Your task to perform on an android device: What is the capital of the United Kingdom? Image 0: 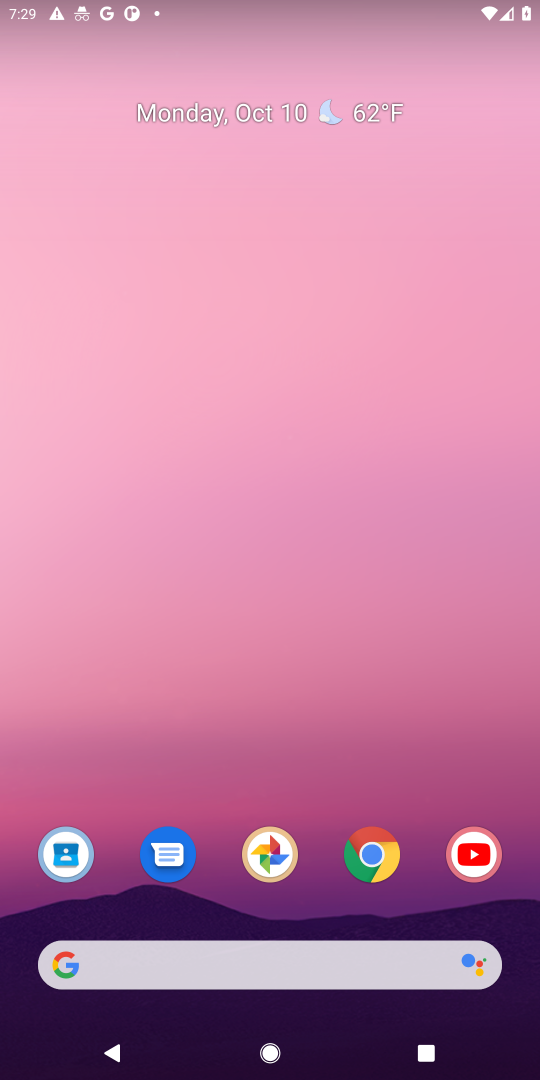
Step 0: click (372, 855)
Your task to perform on an android device: What is the capital of the United Kingdom? Image 1: 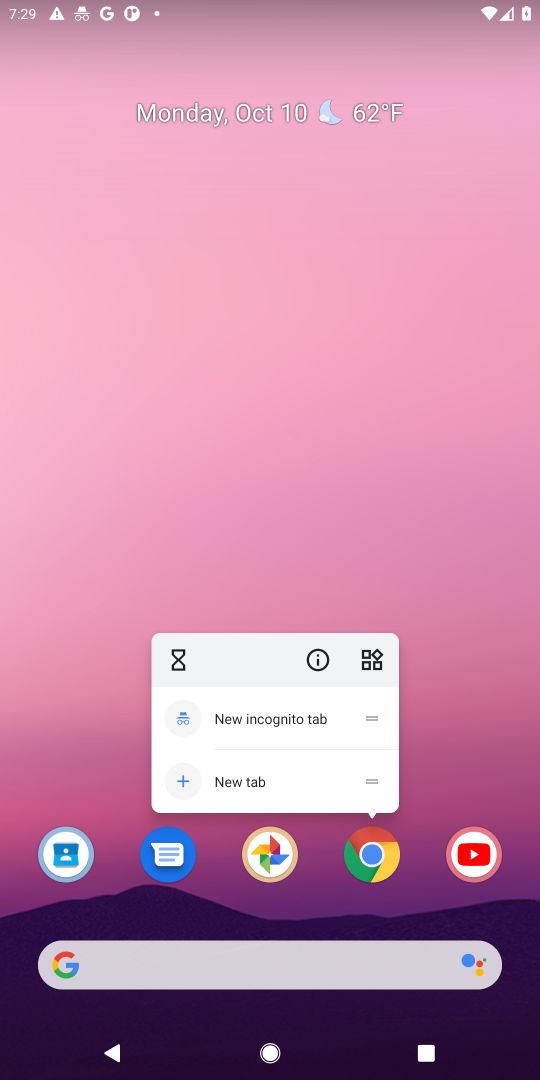
Step 1: click (372, 855)
Your task to perform on an android device: What is the capital of the United Kingdom? Image 2: 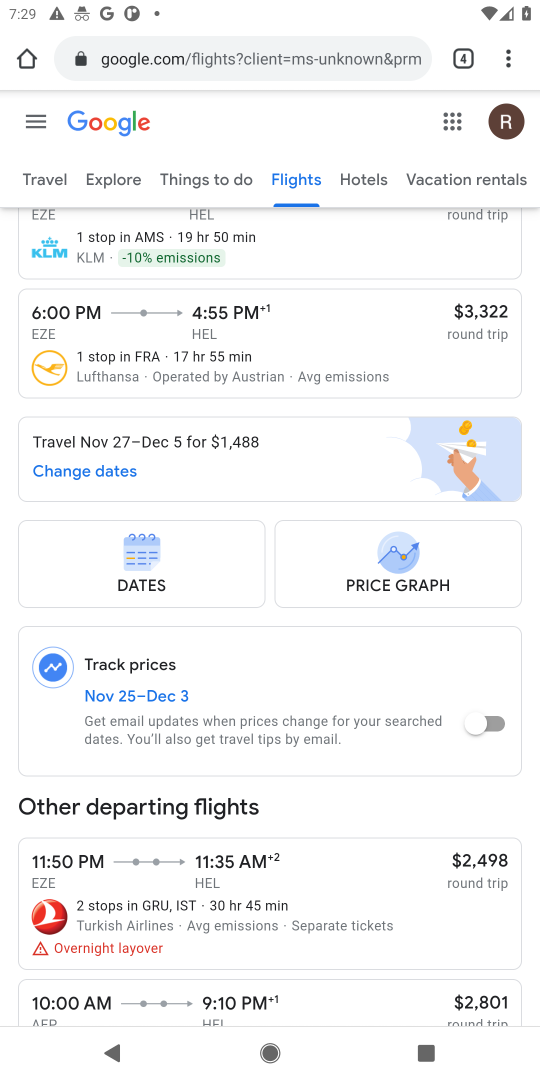
Step 2: drag from (301, 532) to (307, 803)
Your task to perform on an android device: What is the capital of the United Kingdom? Image 3: 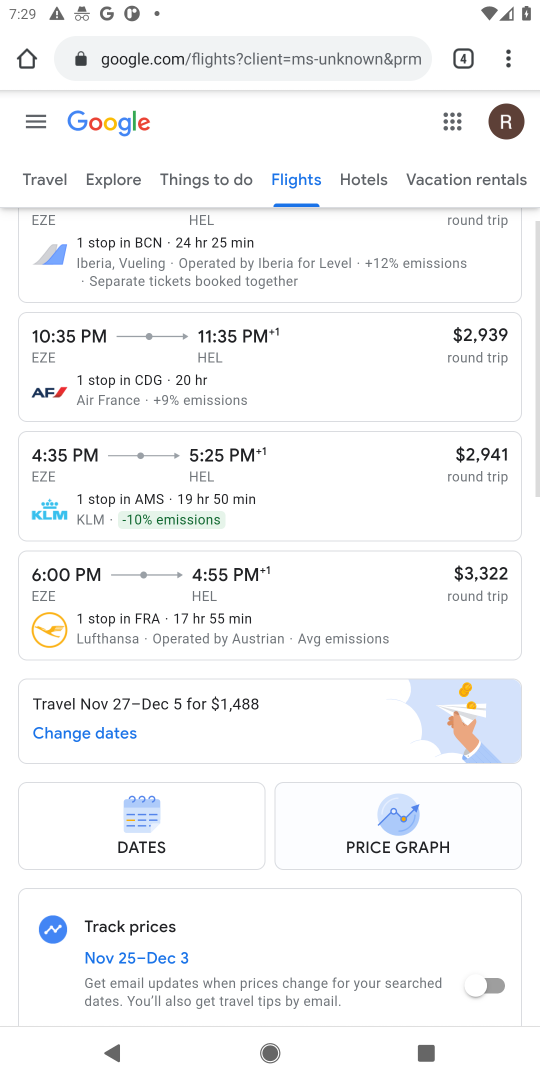
Step 3: click (342, 44)
Your task to perform on an android device: What is the capital of the United Kingdom? Image 4: 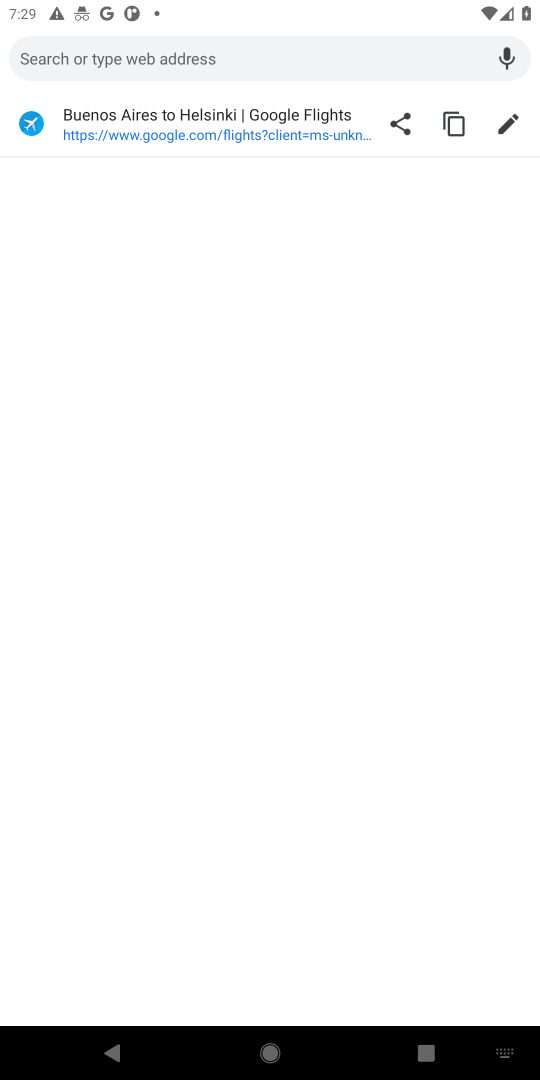
Step 4: click (364, 56)
Your task to perform on an android device: What is the capital of the United Kingdom? Image 5: 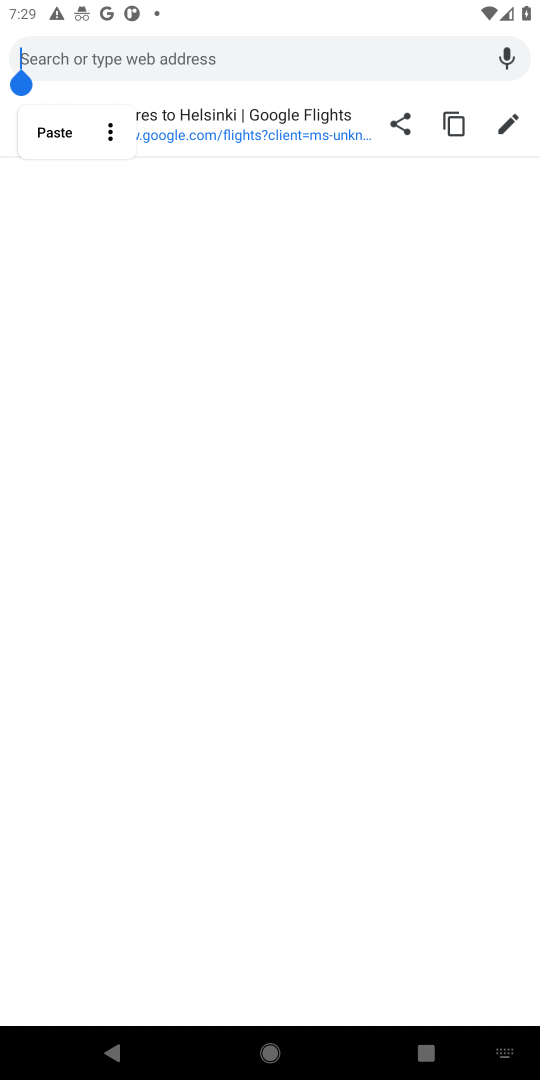
Step 5: click (221, 59)
Your task to perform on an android device: What is the capital of the United Kingdom? Image 6: 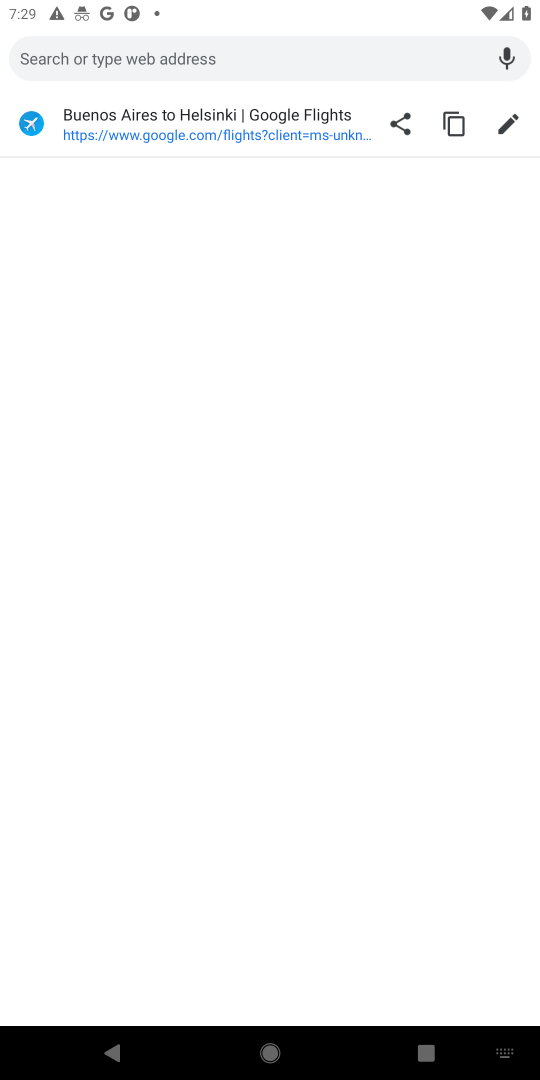
Step 6: type "capital of the United Kingdom"
Your task to perform on an android device: What is the capital of the United Kingdom? Image 7: 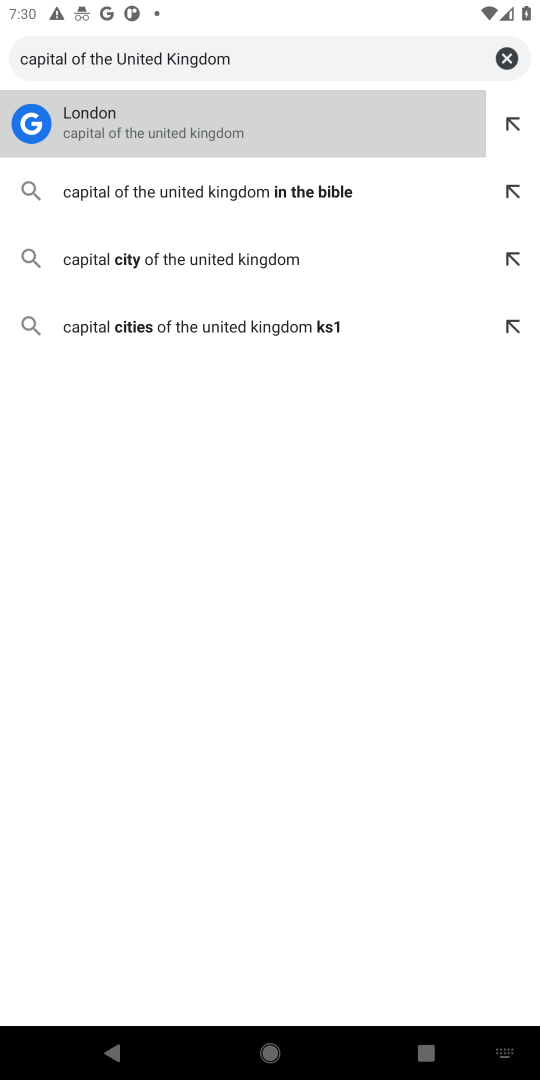
Step 7: click (191, 124)
Your task to perform on an android device: What is the capital of the United Kingdom? Image 8: 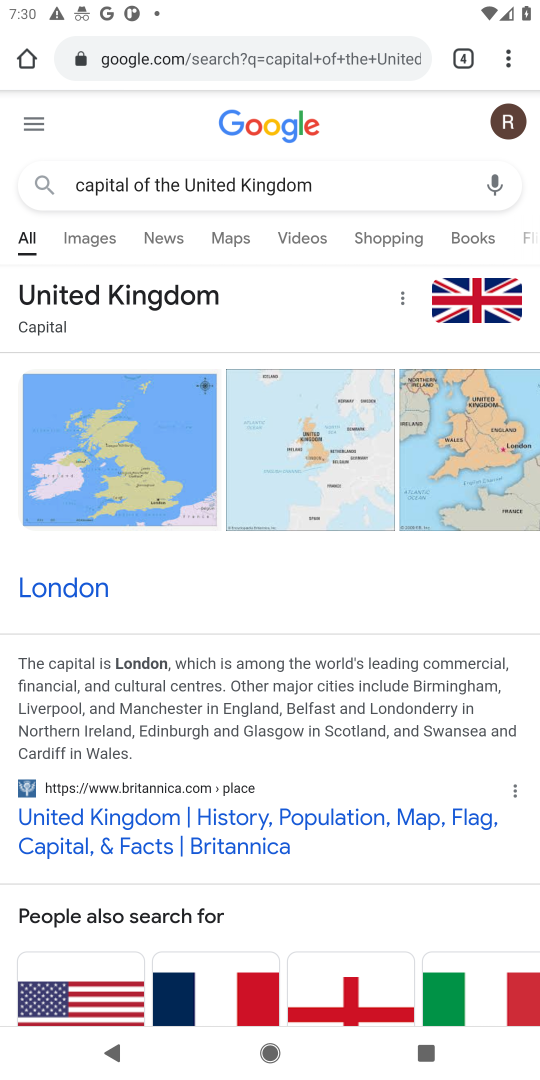
Step 8: task complete